Your task to perform on an android device: turn on translation in the chrome app Image 0: 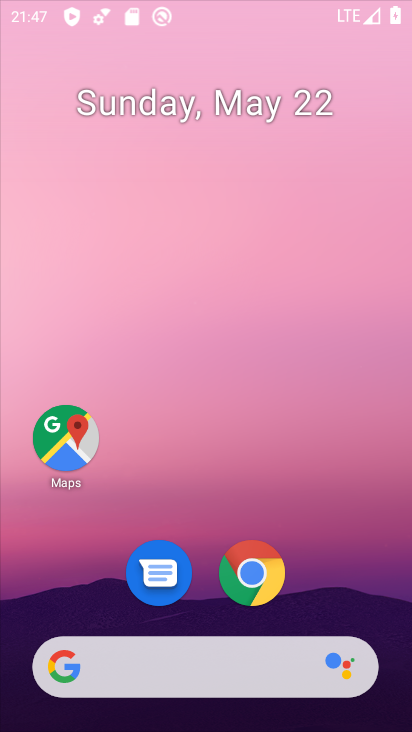
Step 0: press home button
Your task to perform on an android device: turn on translation in the chrome app Image 1: 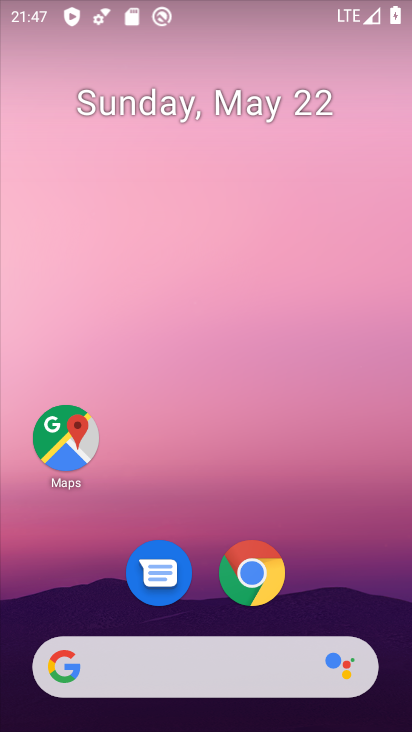
Step 1: click (278, 559)
Your task to perform on an android device: turn on translation in the chrome app Image 2: 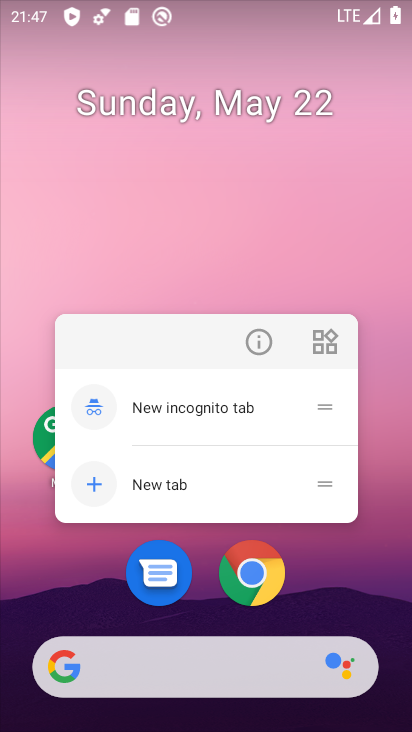
Step 2: click (252, 557)
Your task to perform on an android device: turn on translation in the chrome app Image 3: 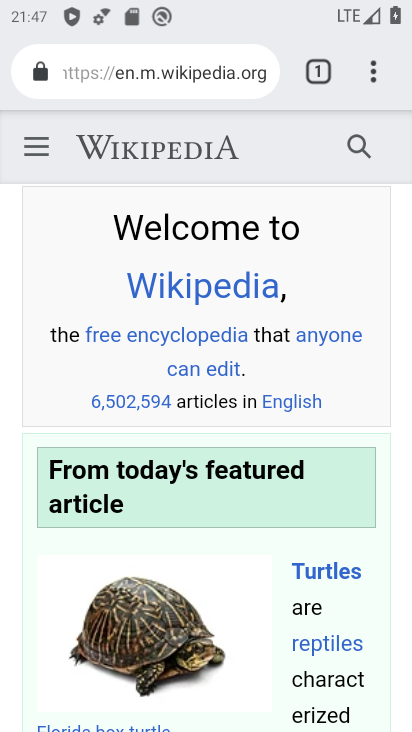
Step 3: drag from (368, 71) to (118, 574)
Your task to perform on an android device: turn on translation in the chrome app Image 4: 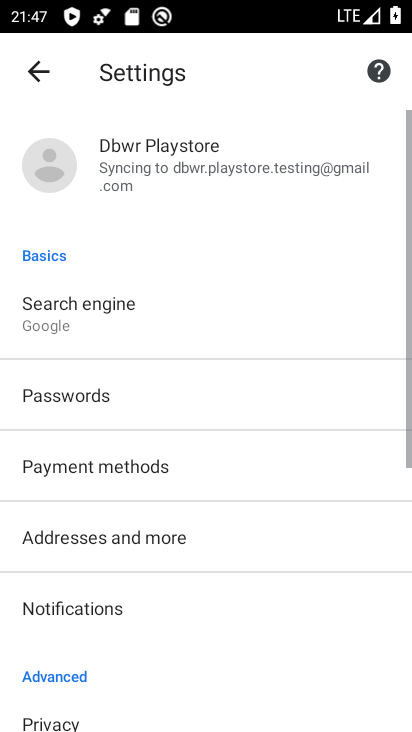
Step 4: drag from (105, 580) to (238, 0)
Your task to perform on an android device: turn on translation in the chrome app Image 5: 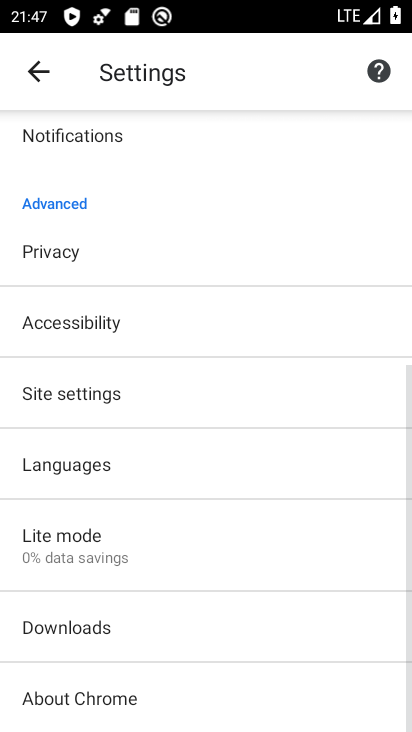
Step 5: click (73, 466)
Your task to perform on an android device: turn on translation in the chrome app Image 6: 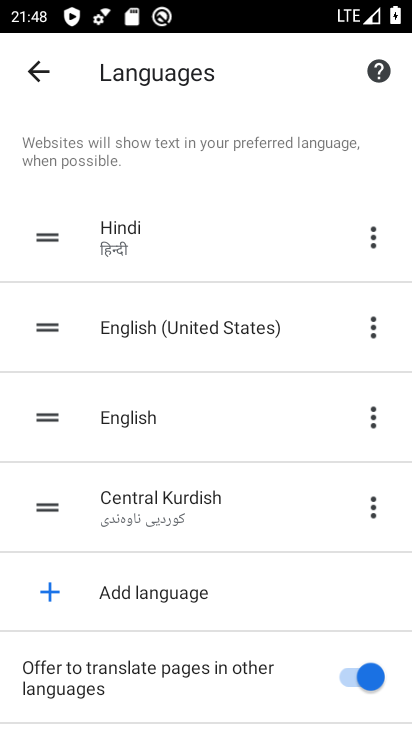
Step 6: task complete